Your task to perform on an android device: Open calendar and show me the fourth week of next month Image 0: 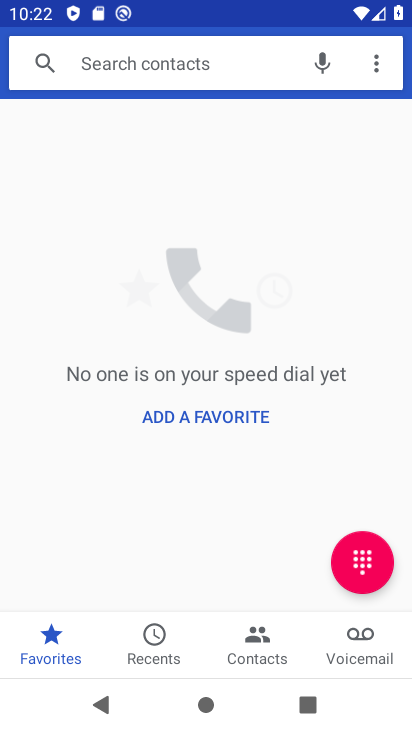
Step 0: press home button
Your task to perform on an android device: Open calendar and show me the fourth week of next month Image 1: 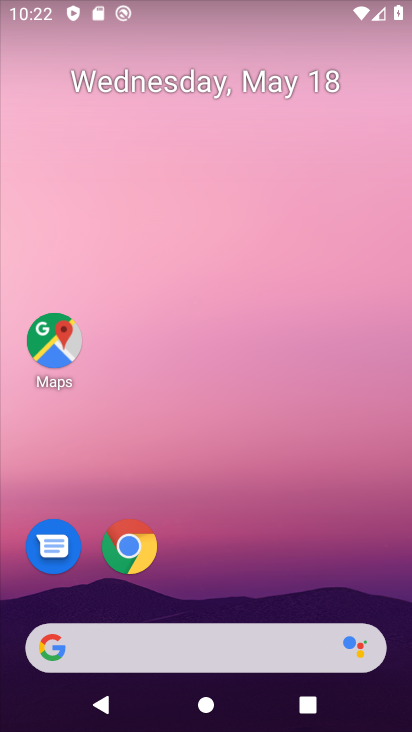
Step 1: drag from (229, 727) to (247, 148)
Your task to perform on an android device: Open calendar and show me the fourth week of next month Image 2: 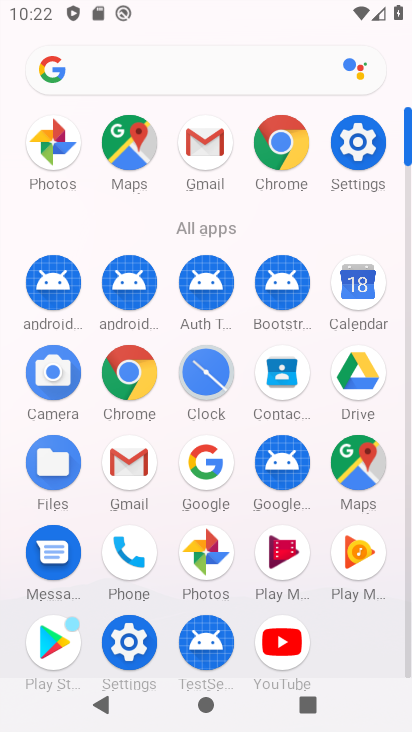
Step 2: click (361, 287)
Your task to perform on an android device: Open calendar and show me the fourth week of next month Image 3: 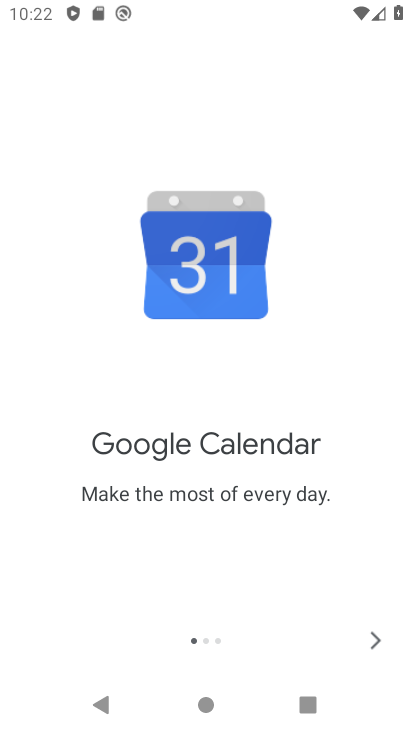
Step 3: click (379, 636)
Your task to perform on an android device: Open calendar and show me the fourth week of next month Image 4: 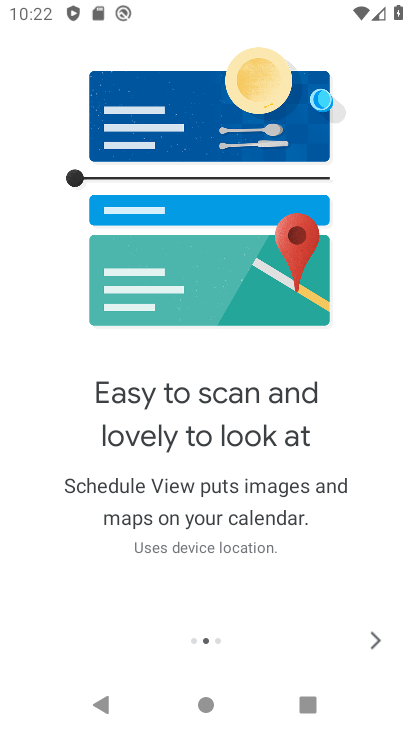
Step 4: click (378, 633)
Your task to perform on an android device: Open calendar and show me the fourth week of next month Image 5: 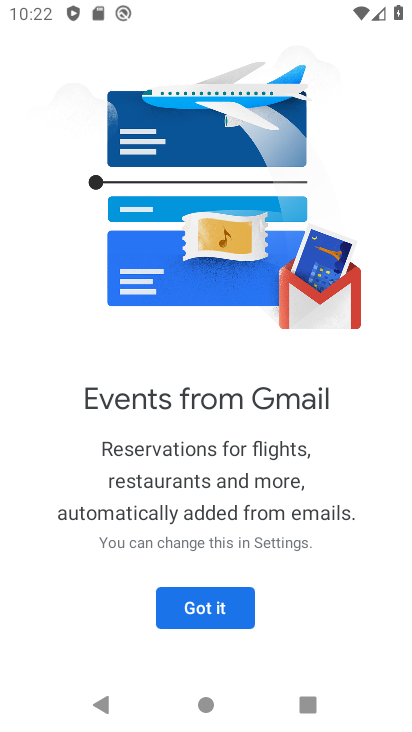
Step 5: click (198, 601)
Your task to perform on an android device: Open calendar and show me the fourth week of next month Image 6: 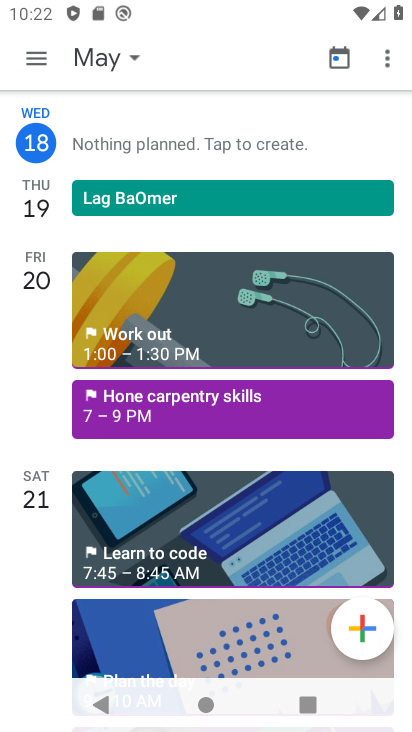
Step 6: click (107, 55)
Your task to perform on an android device: Open calendar and show me the fourth week of next month Image 7: 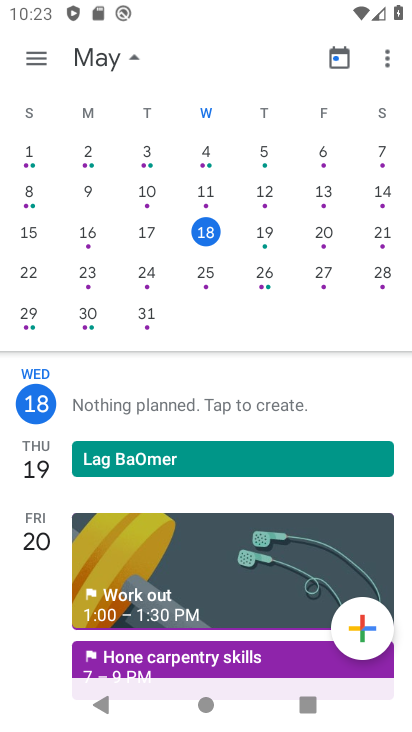
Step 7: drag from (339, 232) to (11, 242)
Your task to perform on an android device: Open calendar and show me the fourth week of next month Image 8: 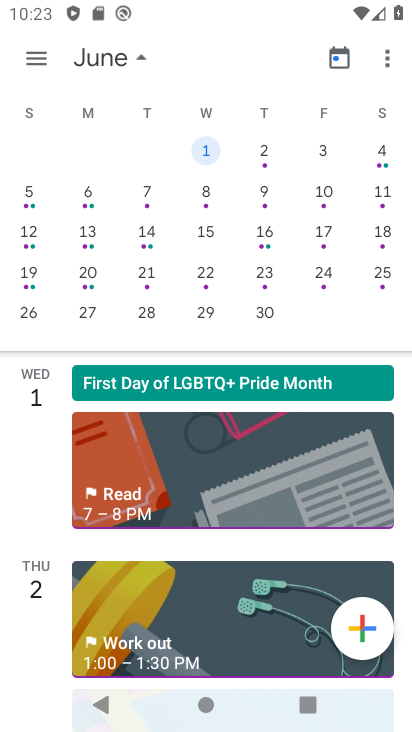
Step 8: click (86, 306)
Your task to perform on an android device: Open calendar and show me the fourth week of next month Image 9: 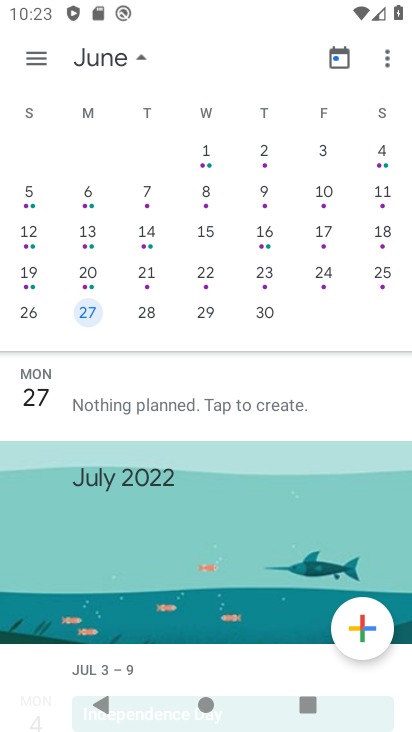
Step 9: click (36, 52)
Your task to perform on an android device: Open calendar and show me the fourth week of next month Image 10: 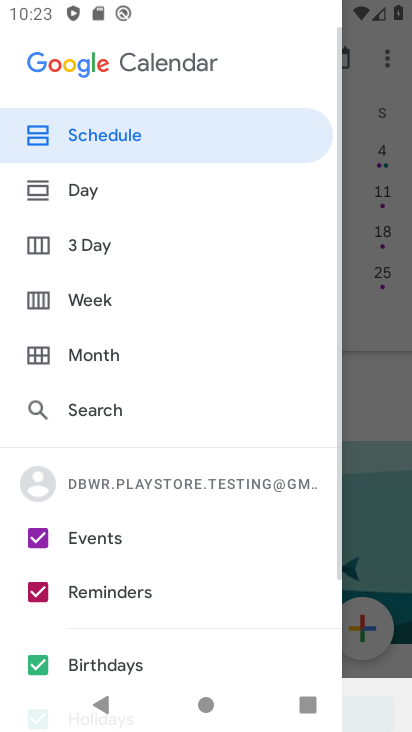
Step 10: click (86, 297)
Your task to perform on an android device: Open calendar and show me the fourth week of next month Image 11: 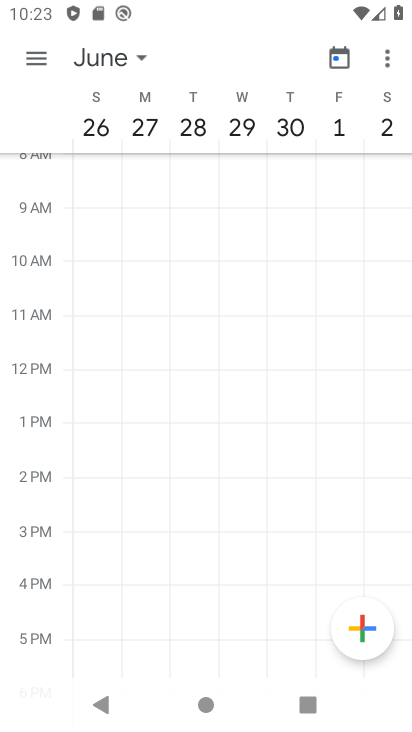
Step 11: task complete